Your task to perform on an android device: delete browsing data in the chrome app Image 0: 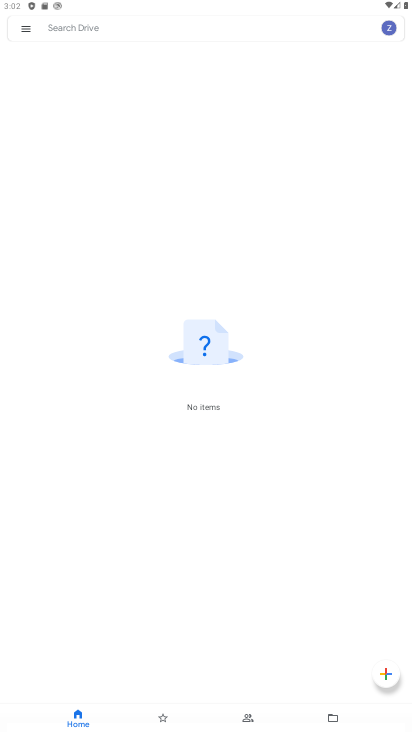
Step 0: press home button
Your task to perform on an android device: delete browsing data in the chrome app Image 1: 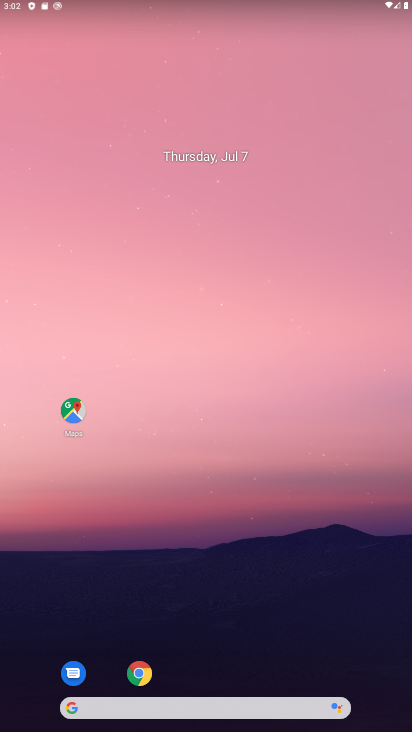
Step 1: drag from (209, 694) to (302, 79)
Your task to perform on an android device: delete browsing data in the chrome app Image 2: 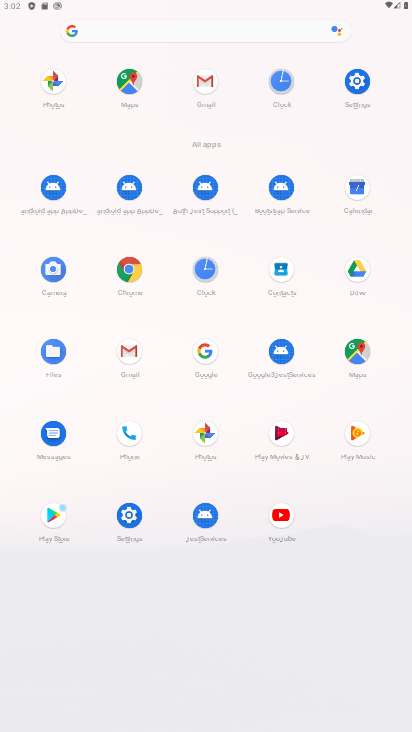
Step 2: click (132, 271)
Your task to perform on an android device: delete browsing data in the chrome app Image 3: 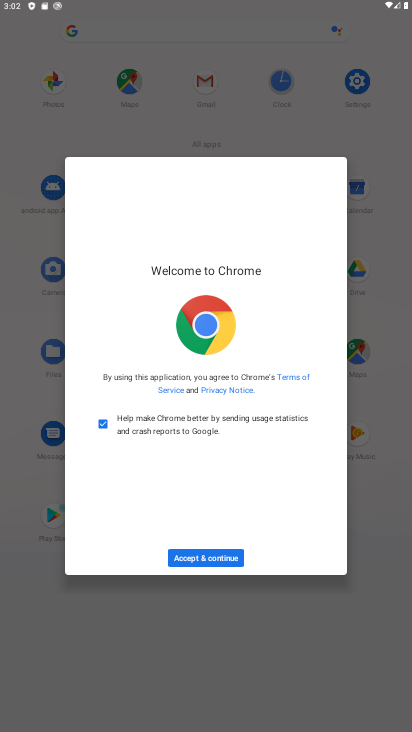
Step 3: click (236, 561)
Your task to perform on an android device: delete browsing data in the chrome app Image 4: 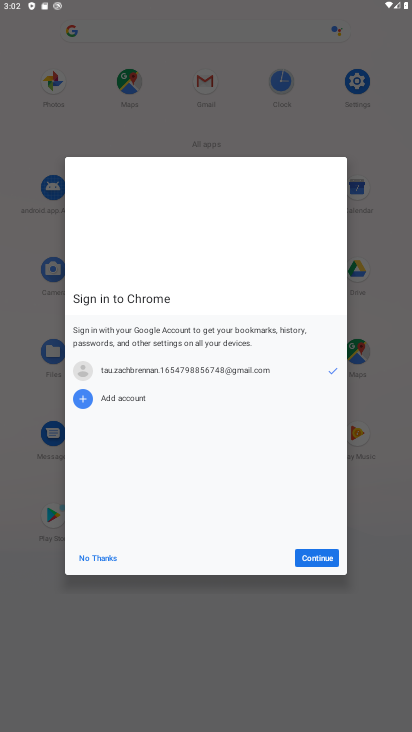
Step 4: click (310, 557)
Your task to perform on an android device: delete browsing data in the chrome app Image 5: 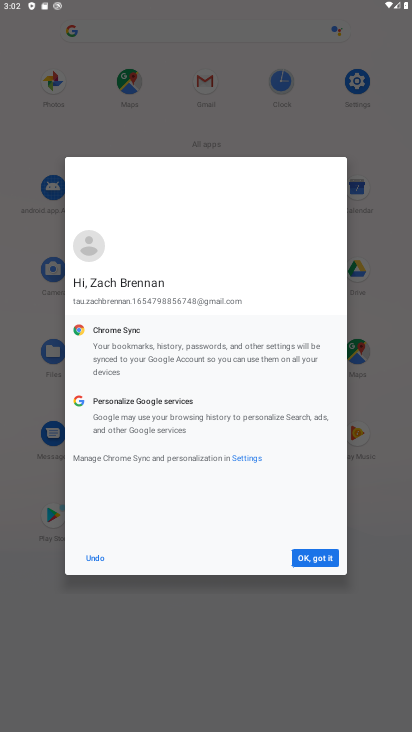
Step 5: click (301, 559)
Your task to perform on an android device: delete browsing data in the chrome app Image 6: 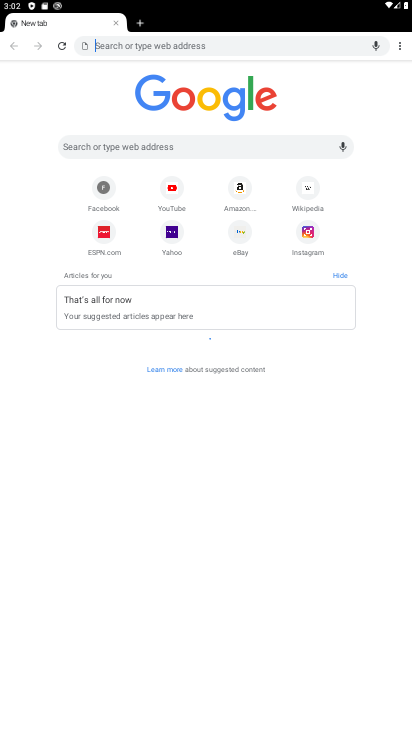
Step 6: drag from (399, 51) to (355, 207)
Your task to perform on an android device: delete browsing data in the chrome app Image 7: 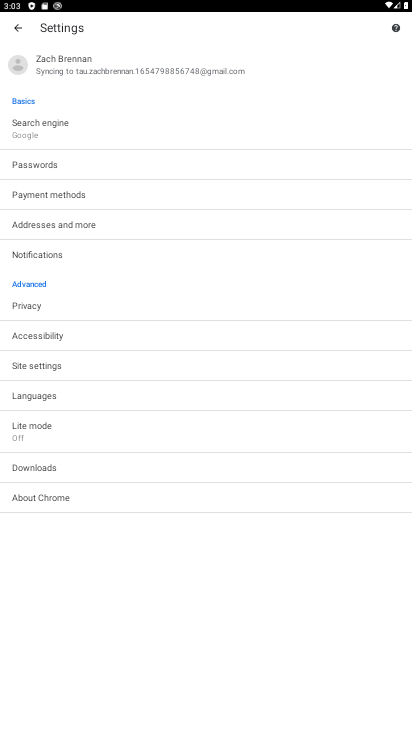
Step 7: click (83, 312)
Your task to perform on an android device: delete browsing data in the chrome app Image 8: 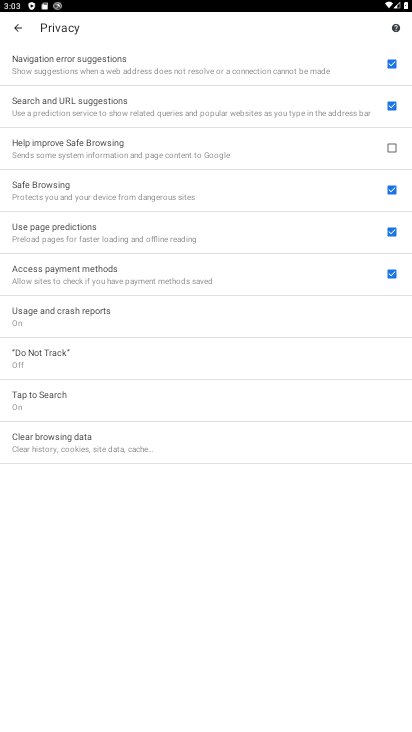
Step 8: click (124, 443)
Your task to perform on an android device: delete browsing data in the chrome app Image 9: 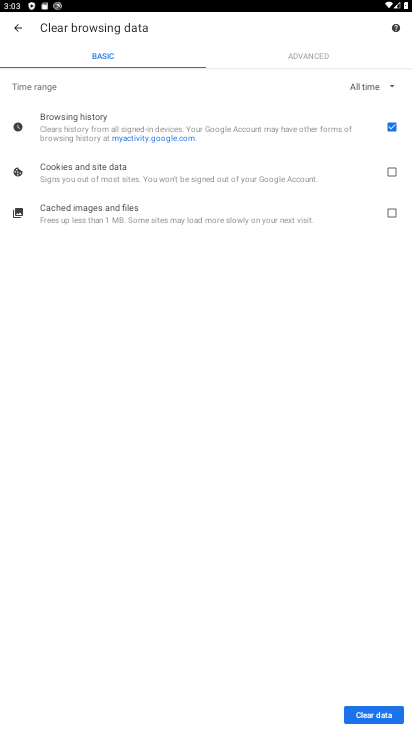
Step 9: click (384, 168)
Your task to perform on an android device: delete browsing data in the chrome app Image 10: 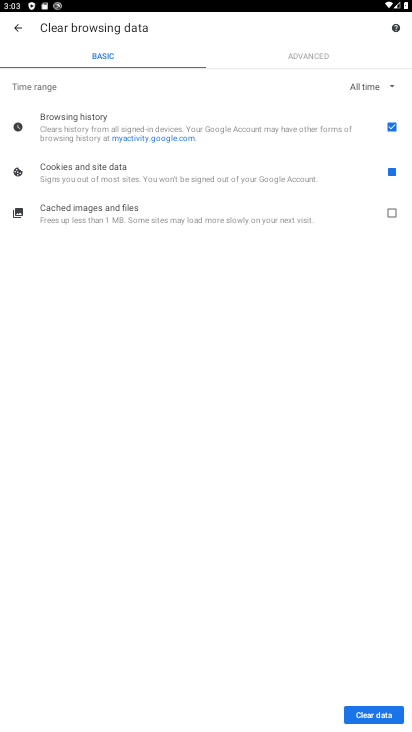
Step 10: click (391, 208)
Your task to perform on an android device: delete browsing data in the chrome app Image 11: 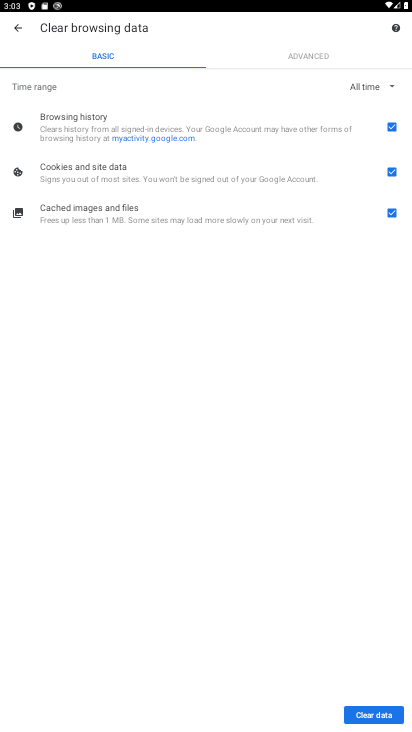
Step 11: click (387, 715)
Your task to perform on an android device: delete browsing data in the chrome app Image 12: 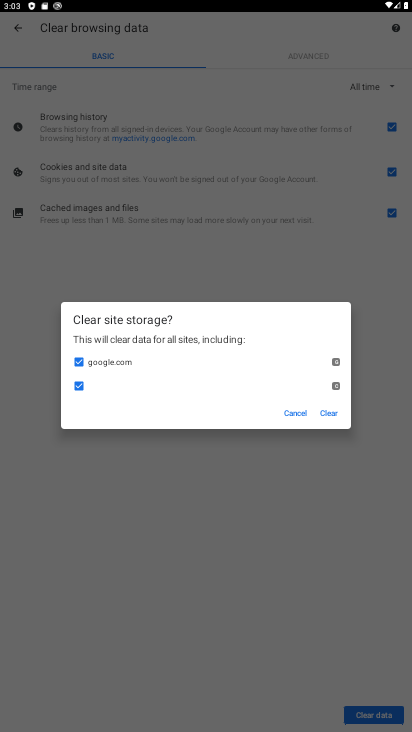
Step 12: click (332, 405)
Your task to perform on an android device: delete browsing data in the chrome app Image 13: 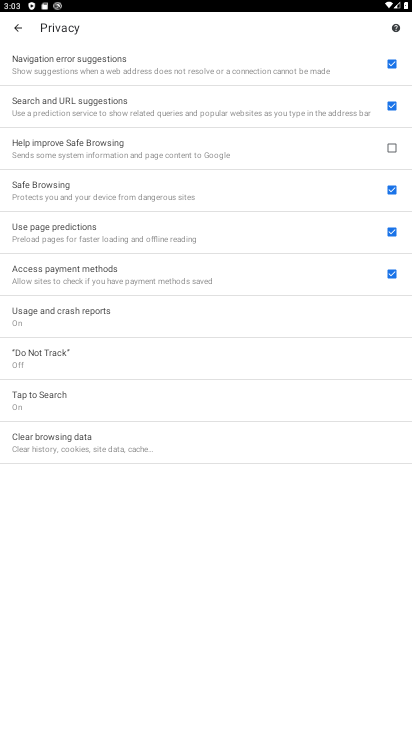
Step 13: task complete